Your task to perform on an android device: delete the emails in spam in the gmail app Image 0: 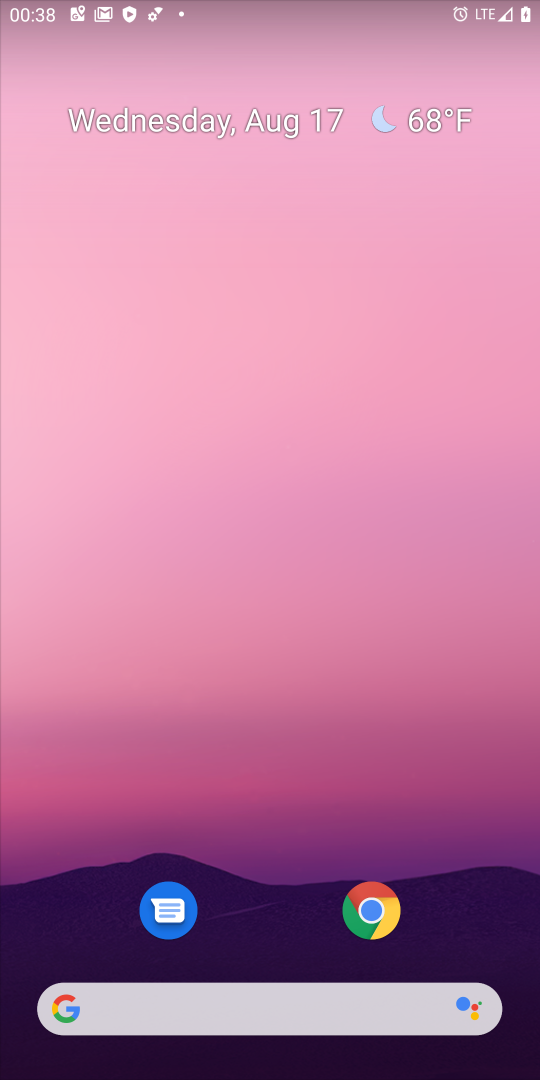
Step 0: drag from (253, 571) to (251, 150)
Your task to perform on an android device: delete the emails in spam in the gmail app Image 1: 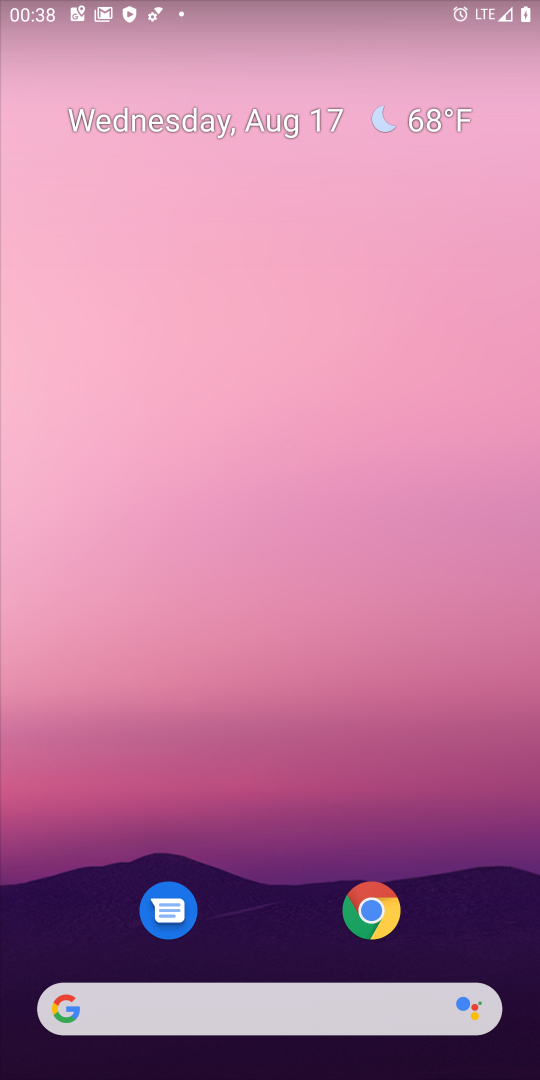
Step 1: drag from (253, 582) to (234, 74)
Your task to perform on an android device: delete the emails in spam in the gmail app Image 2: 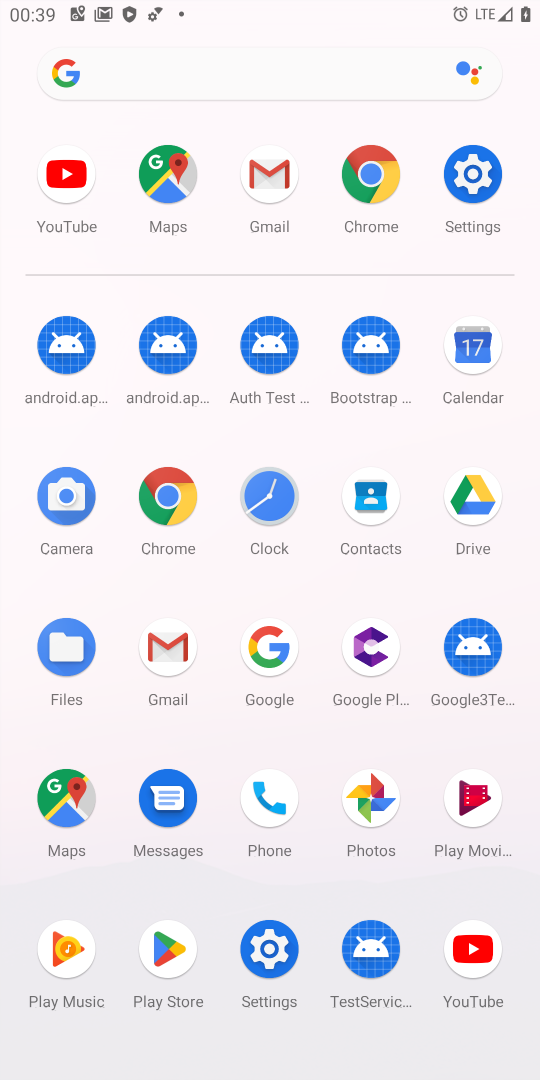
Step 2: click (177, 651)
Your task to perform on an android device: delete the emails in spam in the gmail app Image 3: 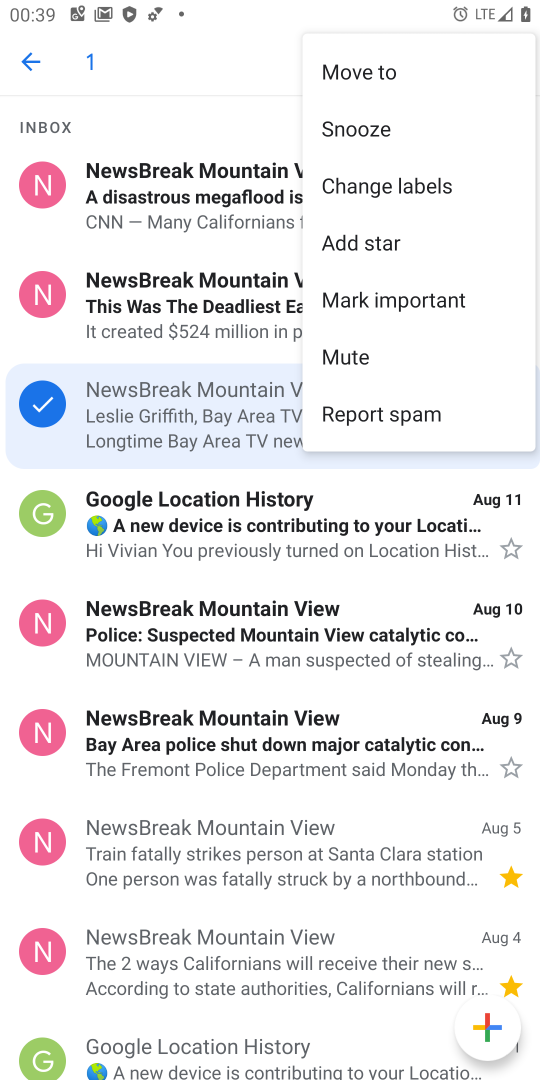
Step 3: press back button
Your task to perform on an android device: delete the emails in spam in the gmail app Image 4: 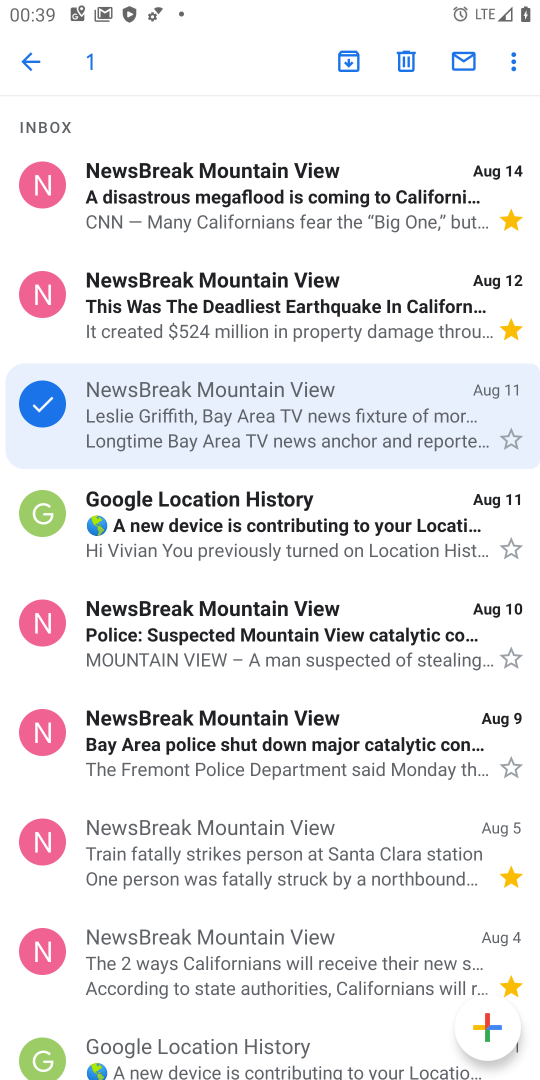
Step 4: click (25, 48)
Your task to perform on an android device: delete the emails in spam in the gmail app Image 5: 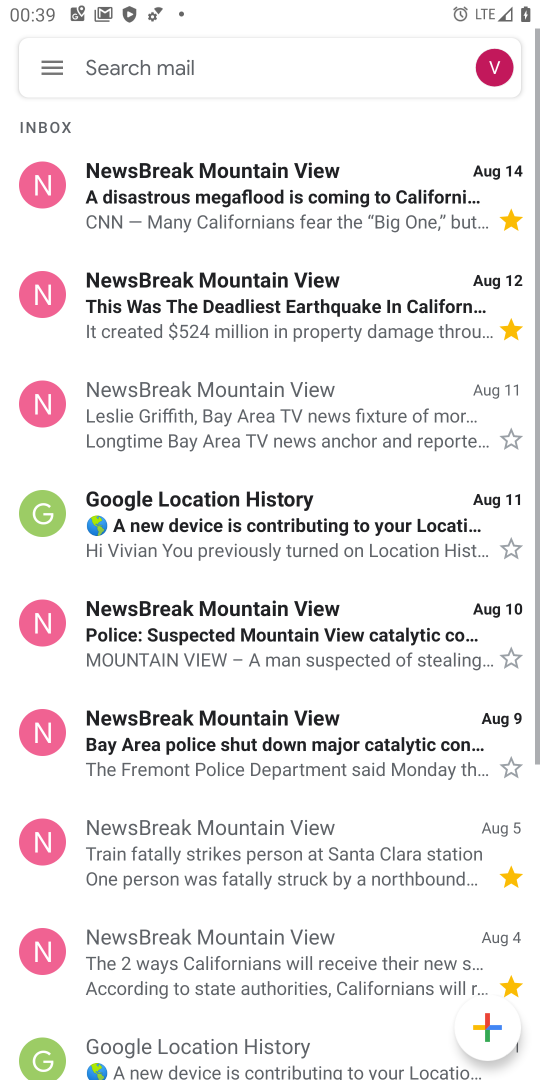
Step 5: click (33, 55)
Your task to perform on an android device: delete the emails in spam in the gmail app Image 6: 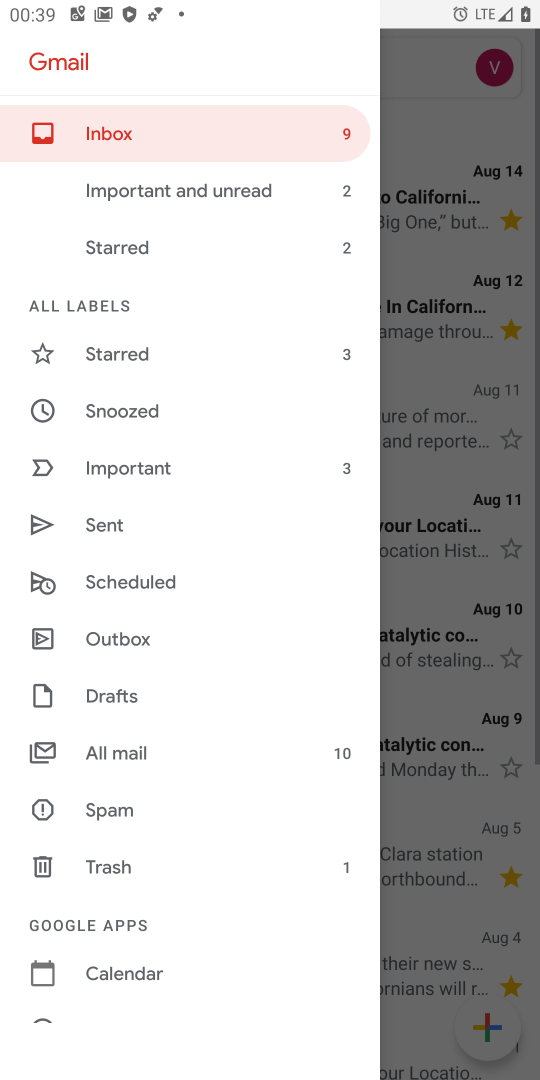
Step 6: click (113, 814)
Your task to perform on an android device: delete the emails in spam in the gmail app Image 7: 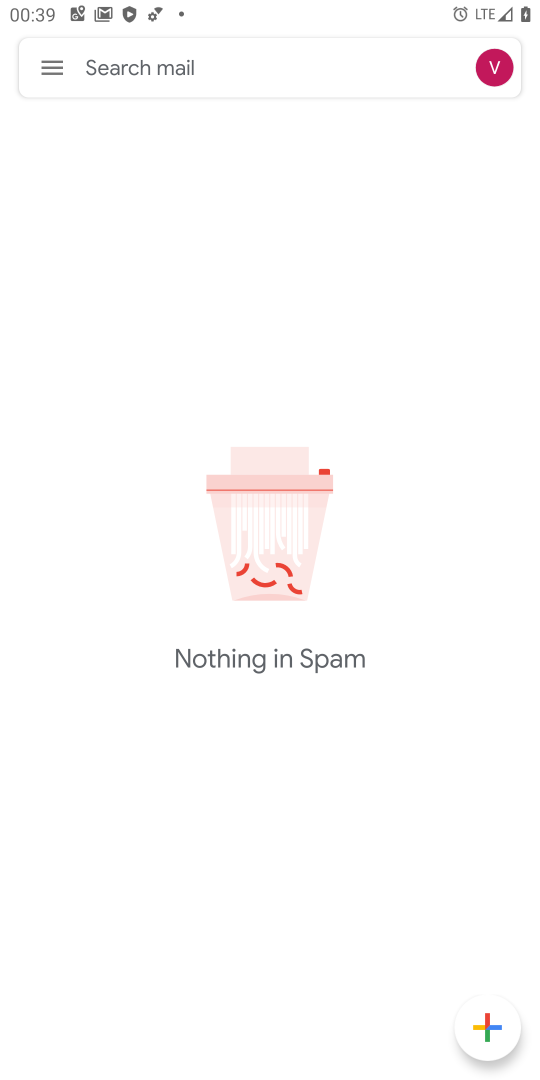
Step 7: task complete